Your task to perform on an android device: check data usage Image 0: 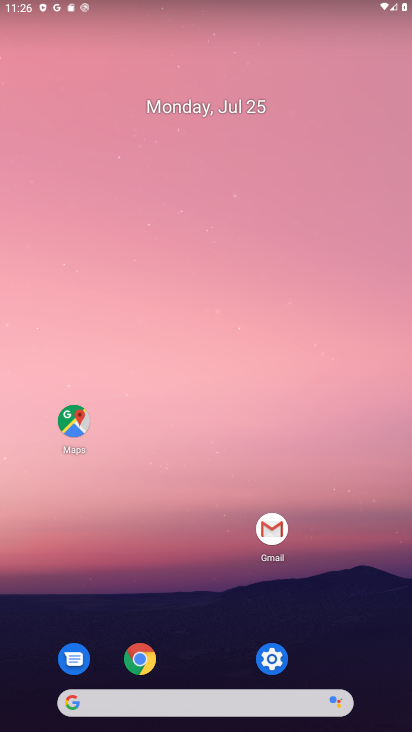
Step 0: click (263, 673)
Your task to perform on an android device: check data usage Image 1: 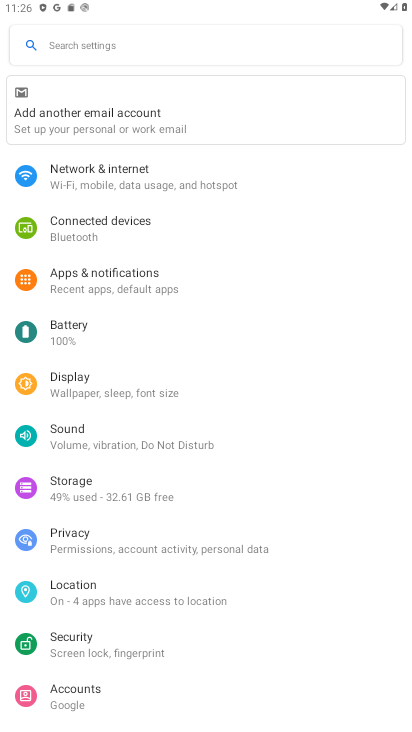
Step 1: click (109, 48)
Your task to perform on an android device: check data usage Image 2: 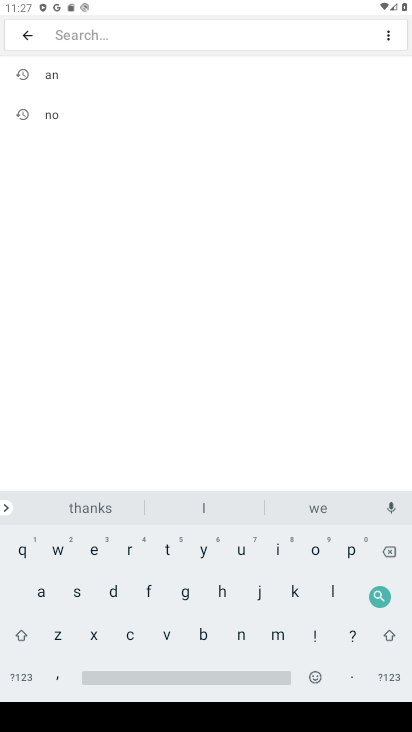
Step 2: click (108, 593)
Your task to perform on an android device: check data usage Image 3: 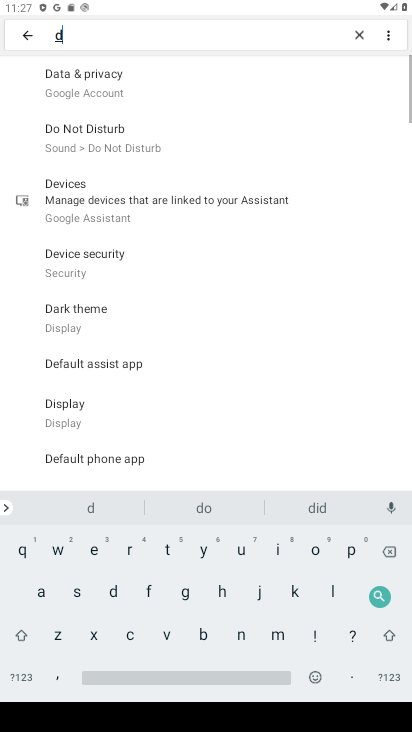
Step 3: click (36, 588)
Your task to perform on an android device: check data usage Image 4: 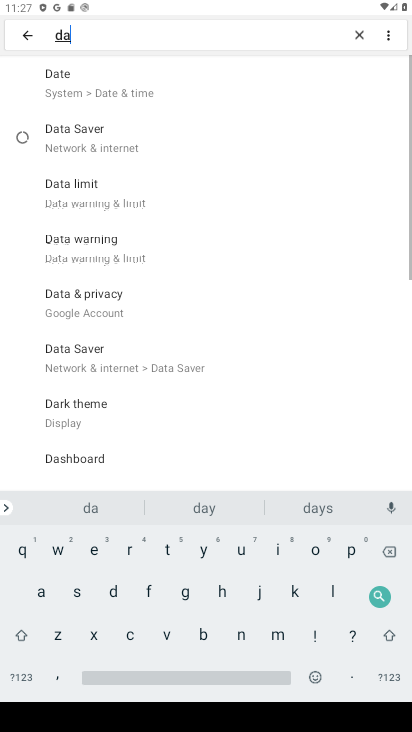
Step 4: click (167, 551)
Your task to perform on an android device: check data usage Image 5: 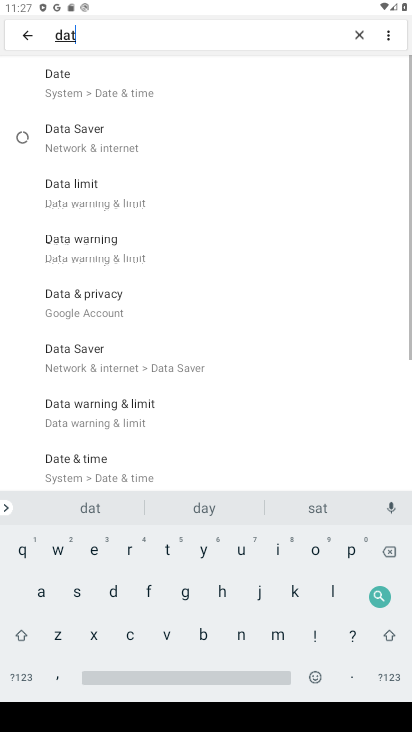
Step 5: click (37, 588)
Your task to perform on an android device: check data usage Image 6: 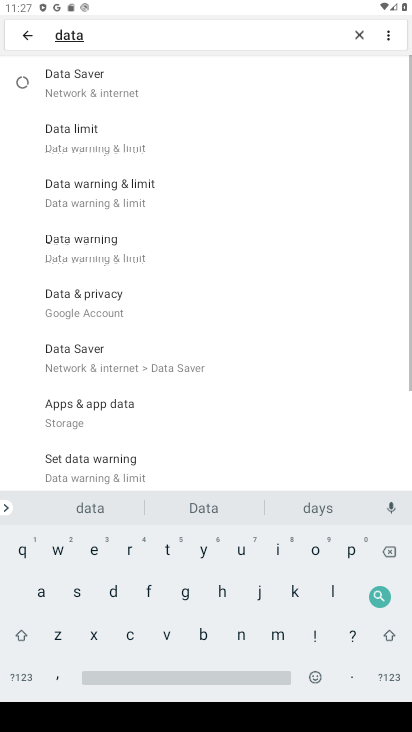
Step 6: click (175, 673)
Your task to perform on an android device: check data usage Image 7: 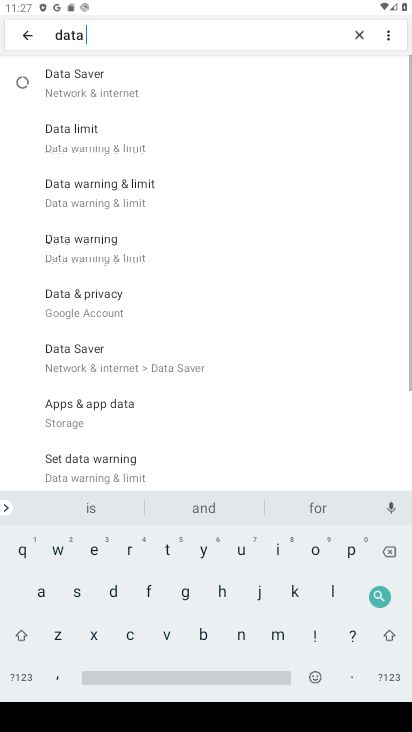
Step 7: click (242, 548)
Your task to perform on an android device: check data usage Image 8: 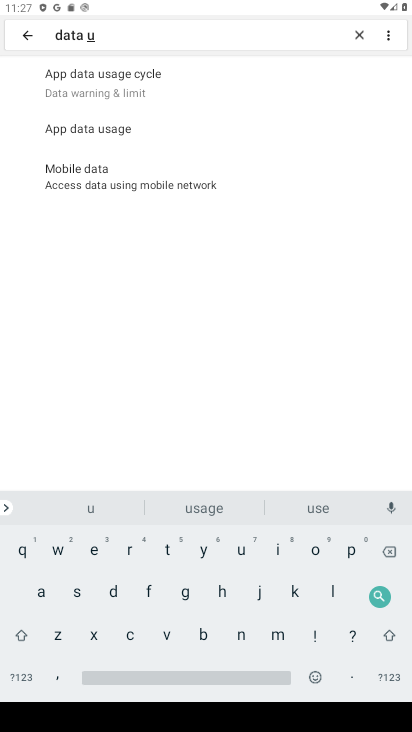
Step 8: click (83, 129)
Your task to perform on an android device: check data usage Image 9: 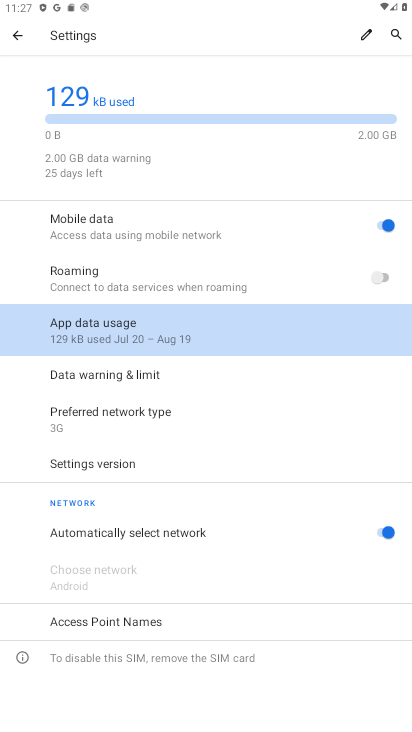
Step 9: click (104, 338)
Your task to perform on an android device: check data usage Image 10: 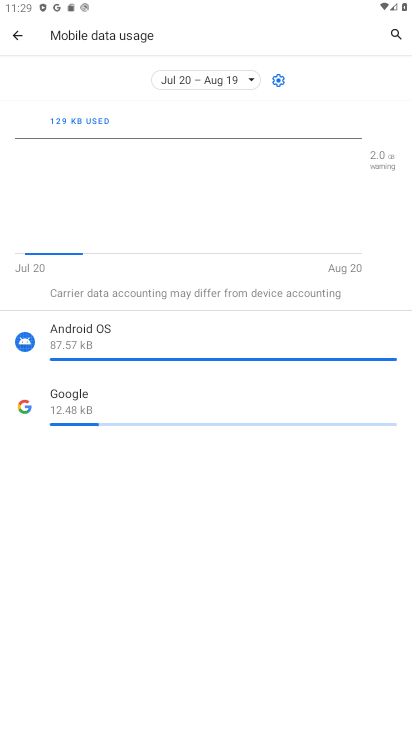
Step 10: task complete